Your task to perform on an android device: find photos in the google photos app Image 0: 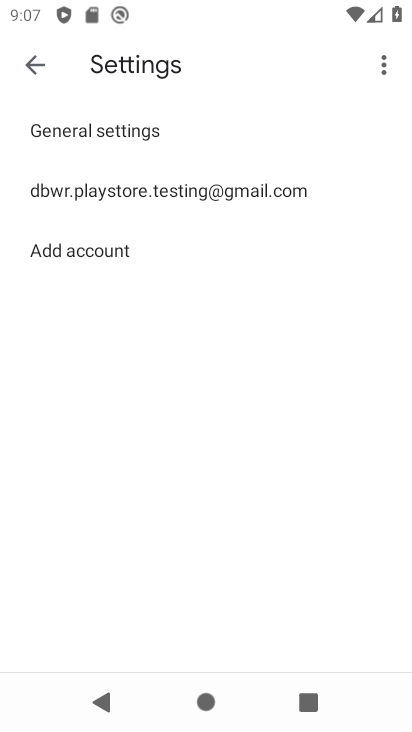
Step 0: press home button
Your task to perform on an android device: find photos in the google photos app Image 1: 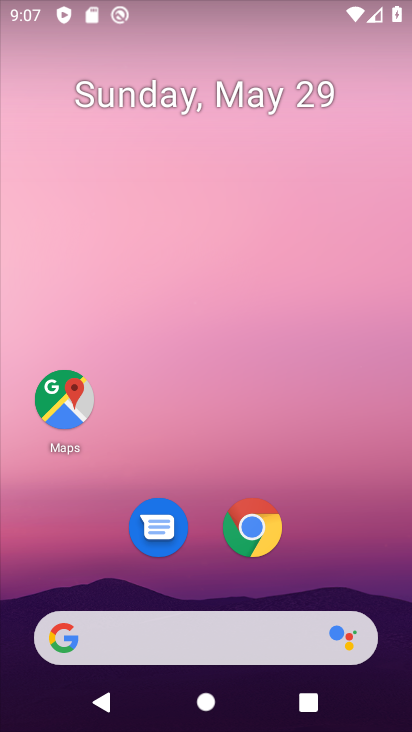
Step 1: drag from (180, 638) to (309, 160)
Your task to perform on an android device: find photos in the google photos app Image 2: 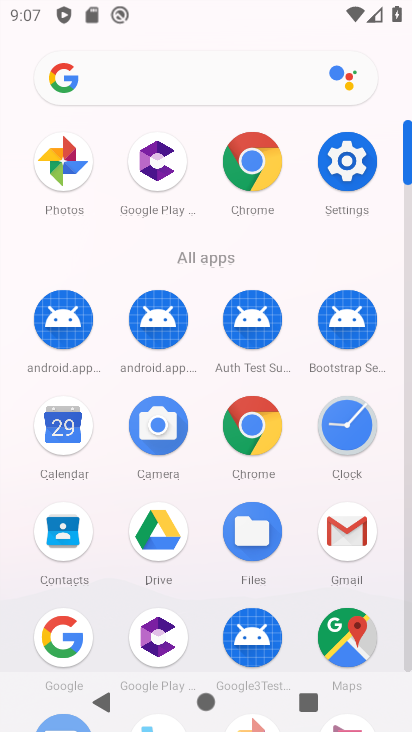
Step 2: click (62, 170)
Your task to perform on an android device: find photos in the google photos app Image 3: 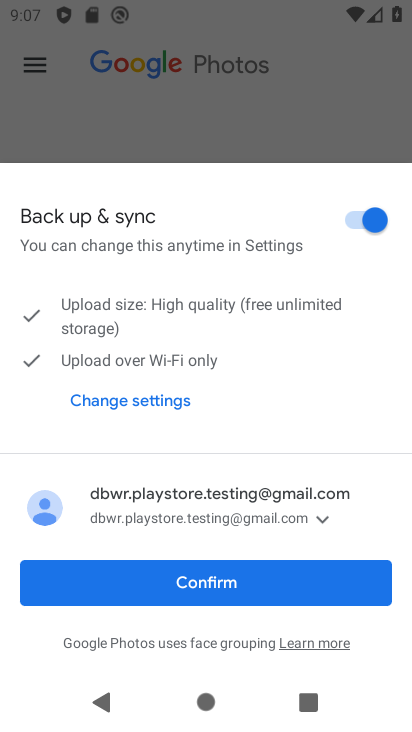
Step 3: click (217, 586)
Your task to perform on an android device: find photos in the google photos app Image 4: 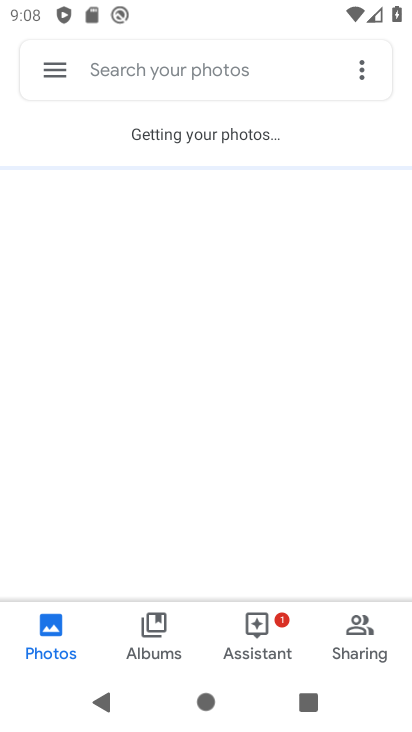
Step 4: task complete